Your task to perform on an android device: Go to wifi settings Image 0: 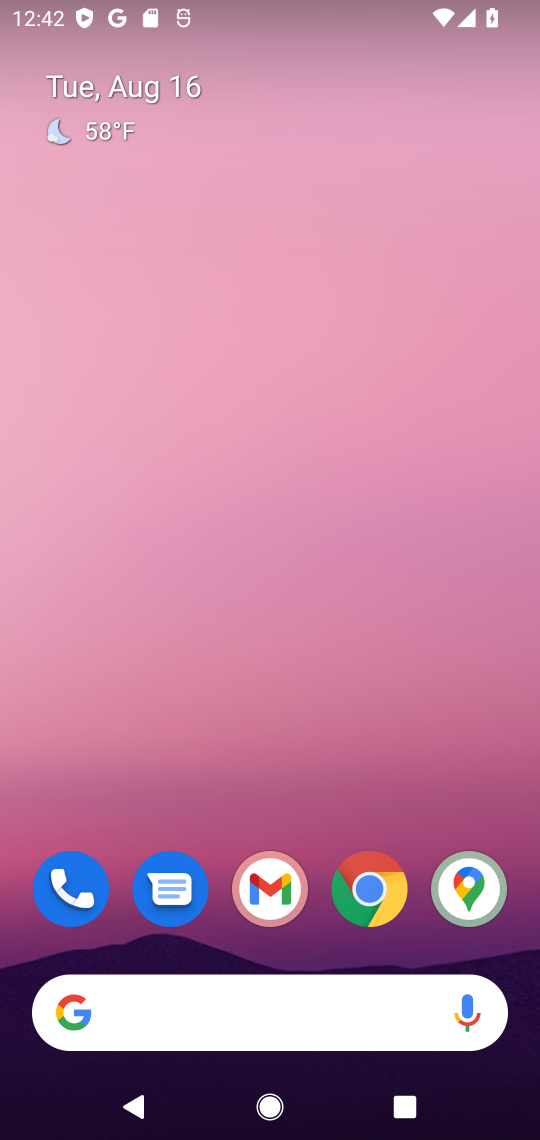
Step 0: drag from (313, 915) to (459, 14)
Your task to perform on an android device: Go to wifi settings Image 1: 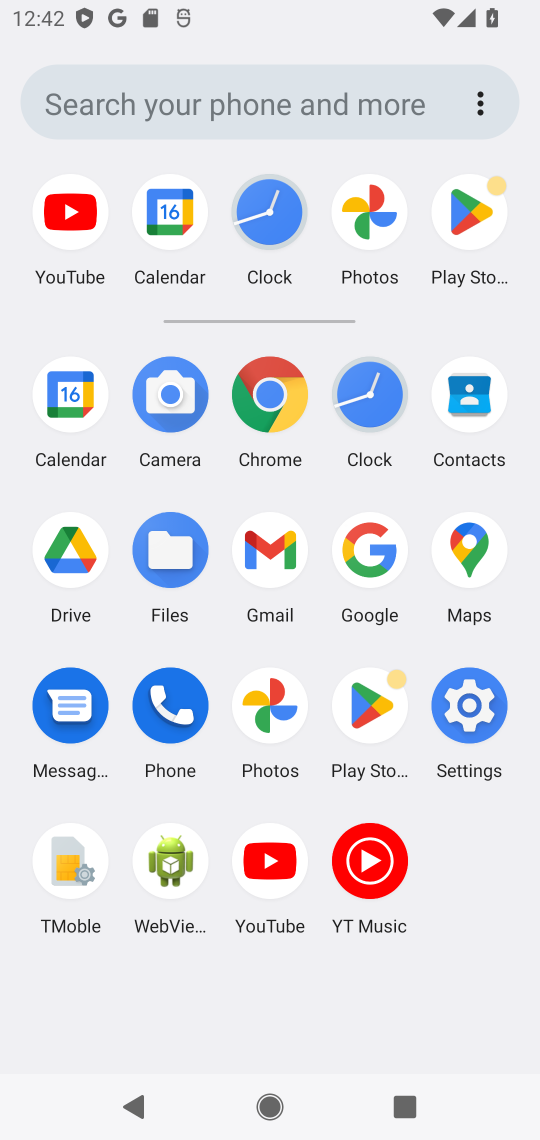
Step 1: click (490, 712)
Your task to perform on an android device: Go to wifi settings Image 2: 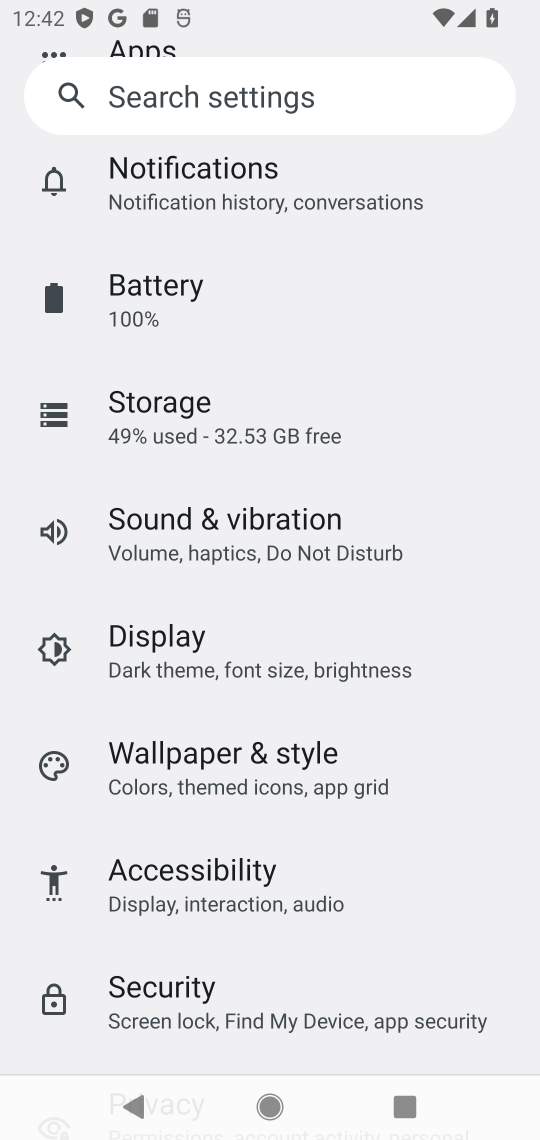
Step 2: drag from (298, 401) to (136, 1014)
Your task to perform on an android device: Go to wifi settings Image 3: 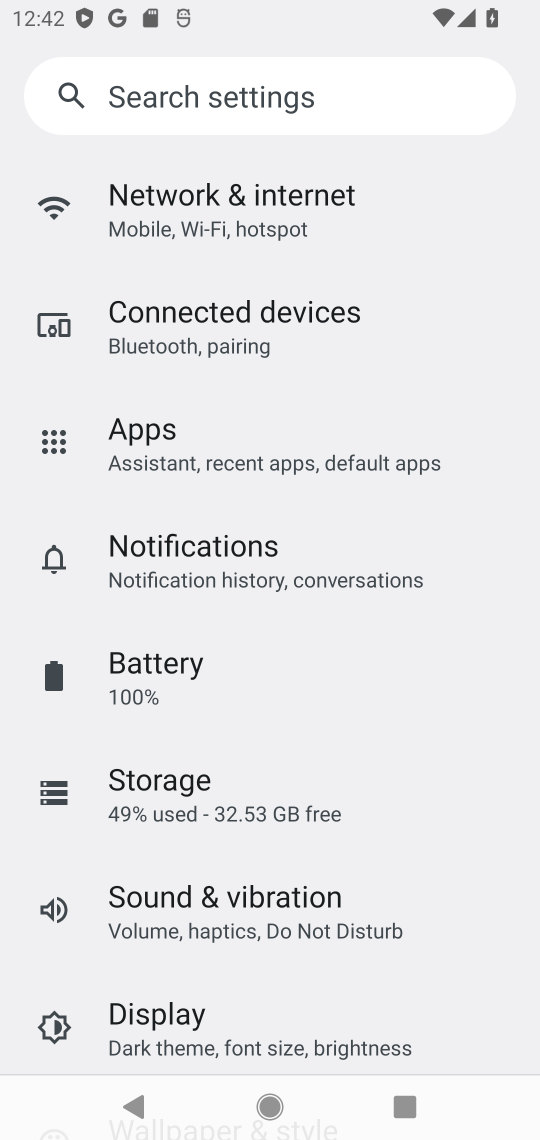
Step 3: drag from (353, 400) to (234, 942)
Your task to perform on an android device: Go to wifi settings Image 4: 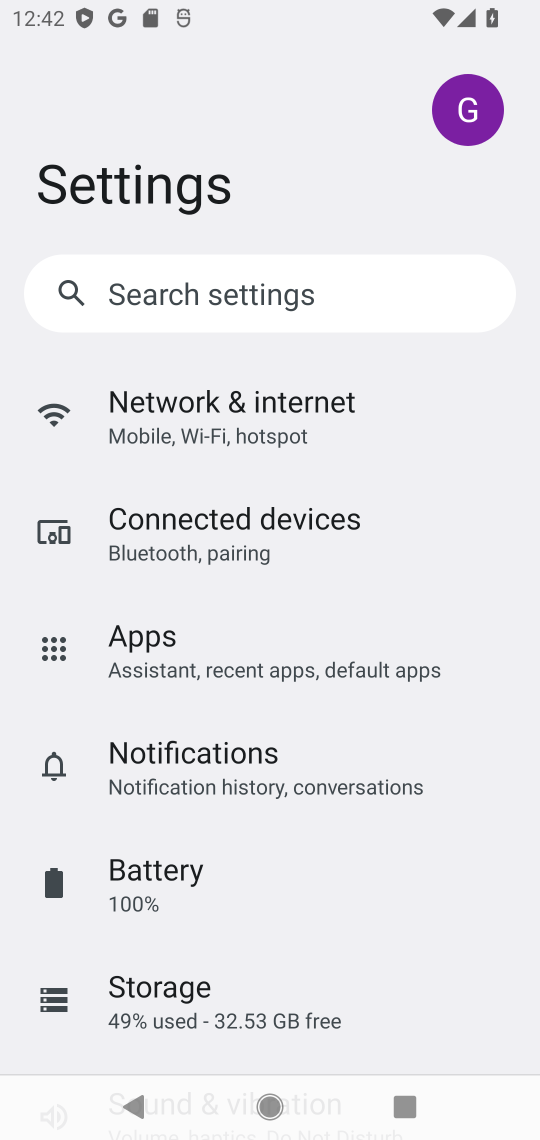
Step 4: click (294, 416)
Your task to perform on an android device: Go to wifi settings Image 5: 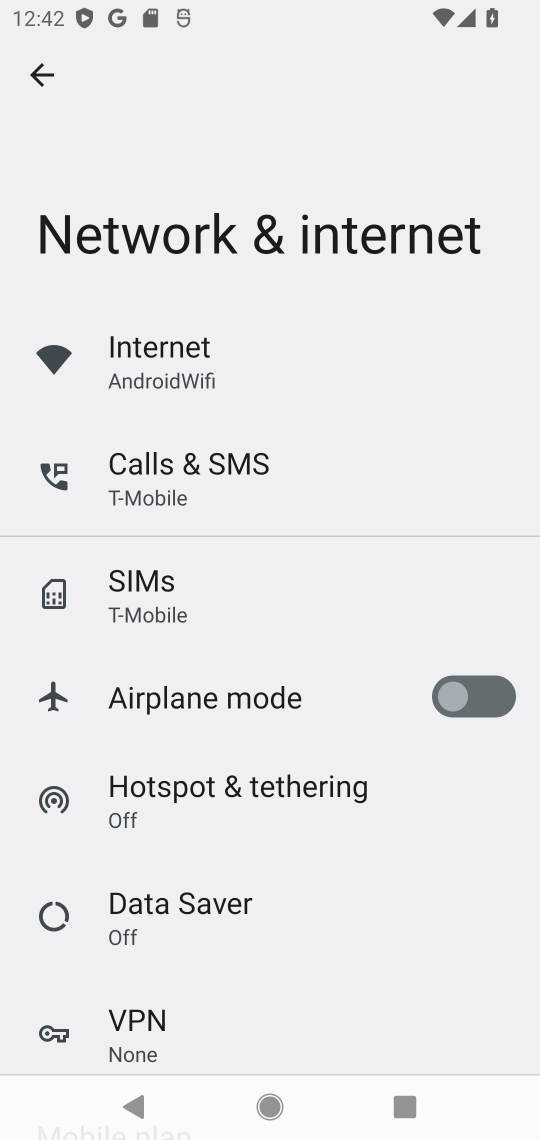
Step 5: click (181, 369)
Your task to perform on an android device: Go to wifi settings Image 6: 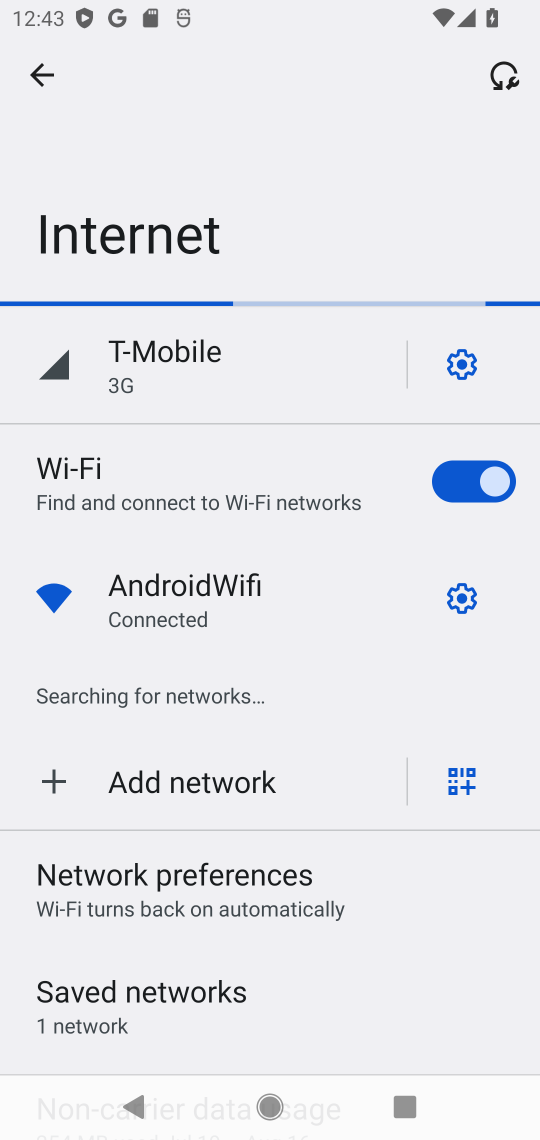
Step 6: click (165, 619)
Your task to perform on an android device: Go to wifi settings Image 7: 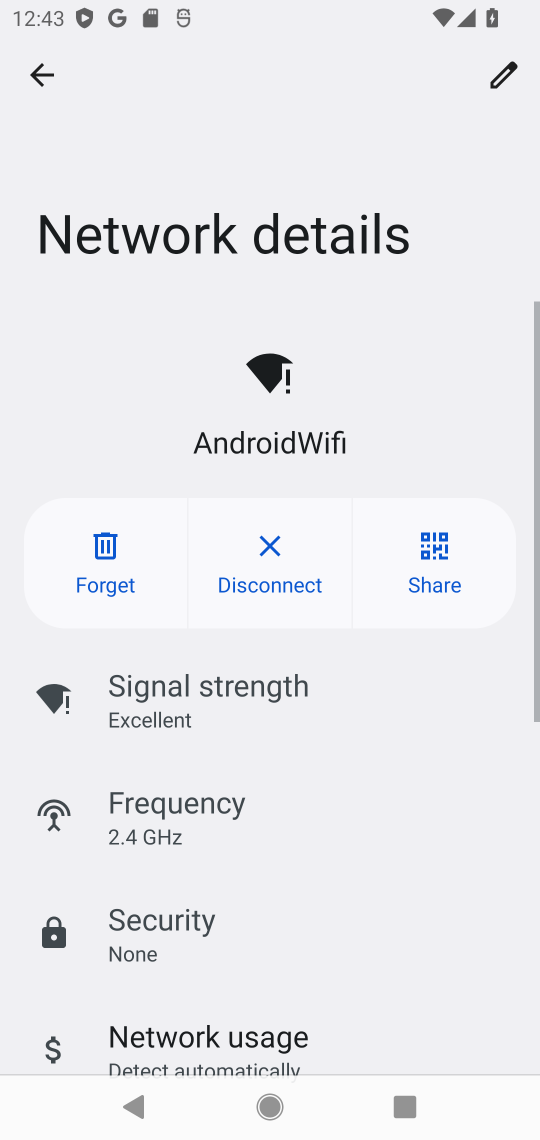
Step 7: task complete